Your task to perform on an android device: Go to notification settings Image 0: 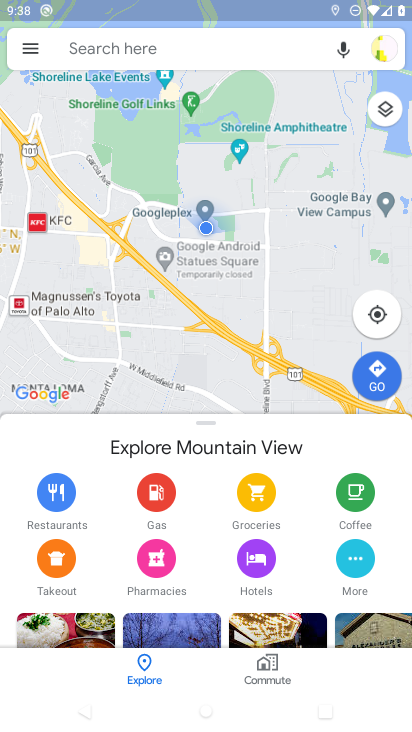
Step 0: press home button
Your task to perform on an android device: Go to notification settings Image 1: 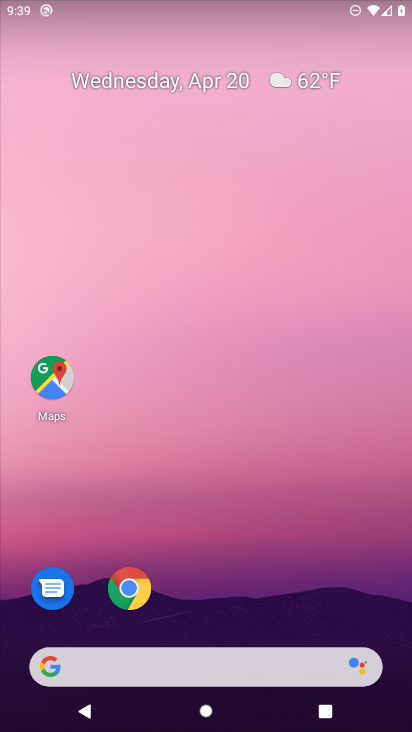
Step 1: drag from (237, 614) to (247, 171)
Your task to perform on an android device: Go to notification settings Image 2: 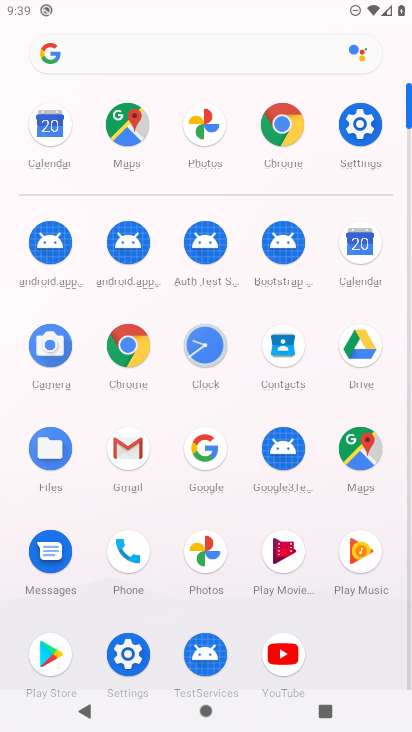
Step 2: click (356, 115)
Your task to perform on an android device: Go to notification settings Image 3: 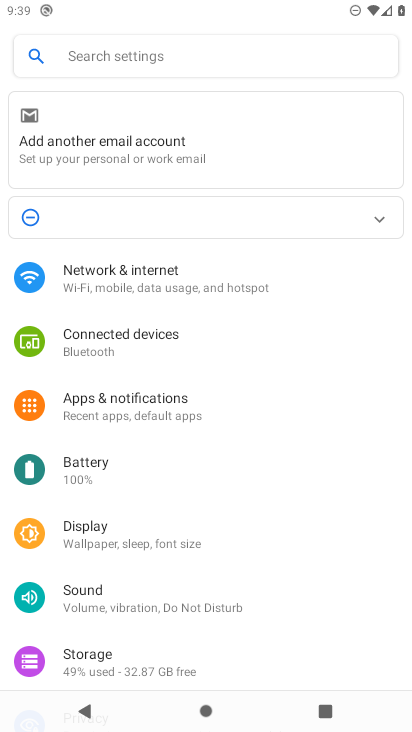
Step 3: click (143, 403)
Your task to perform on an android device: Go to notification settings Image 4: 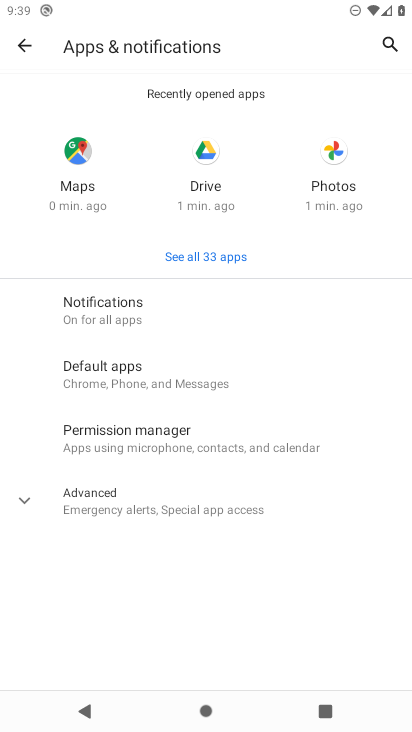
Step 4: click (151, 301)
Your task to perform on an android device: Go to notification settings Image 5: 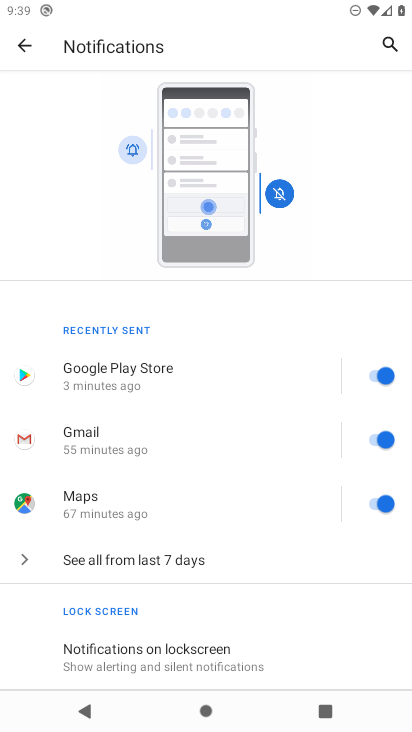
Step 5: click (384, 370)
Your task to perform on an android device: Go to notification settings Image 6: 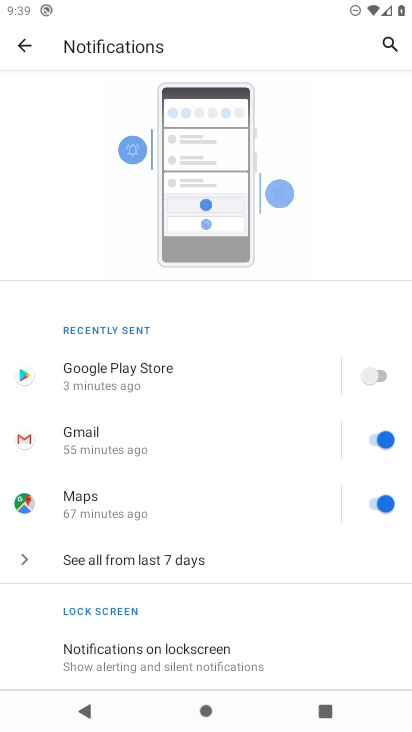
Step 6: click (379, 433)
Your task to perform on an android device: Go to notification settings Image 7: 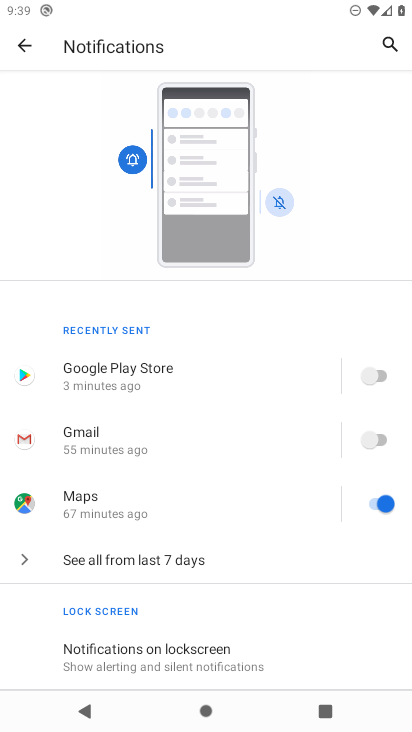
Step 7: click (385, 504)
Your task to perform on an android device: Go to notification settings Image 8: 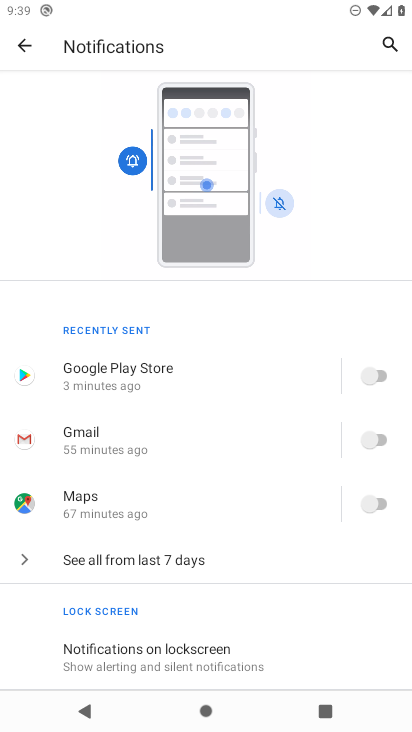
Step 8: click (160, 647)
Your task to perform on an android device: Go to notification settings Image 9: 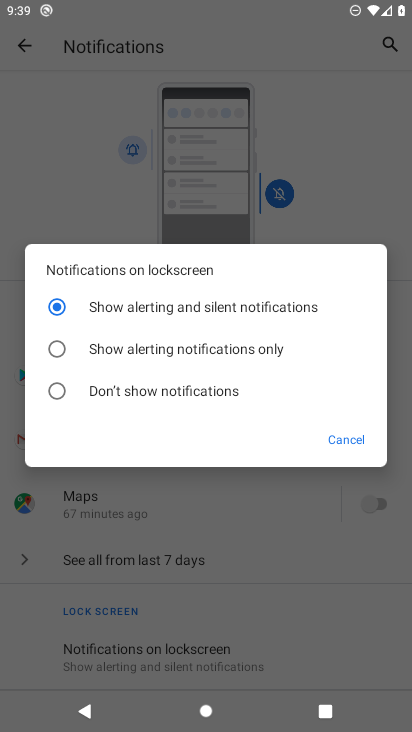
Step 9: click (60, 345)
Your task to perform on an android device: Go to notification settings Image 10: 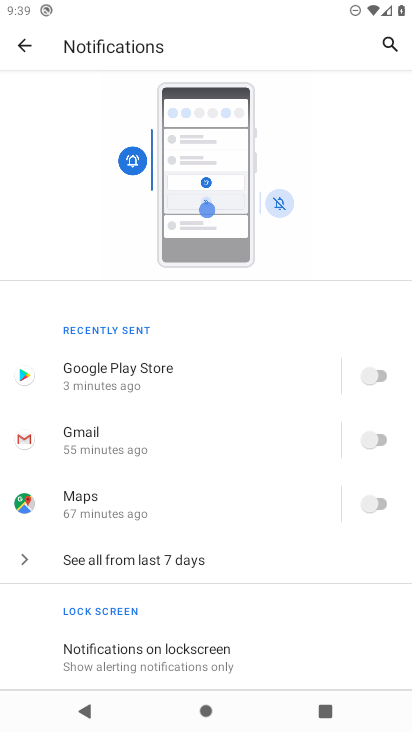
Step 10: task complete